Your task to perform on an android device: Is it going to rain today? Image 0: 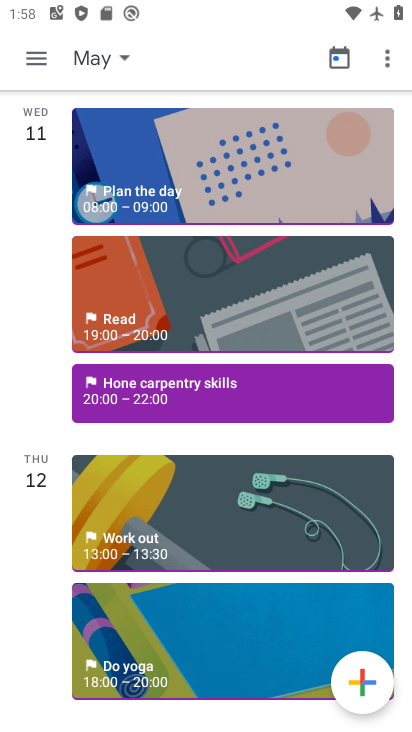
Step 0: press home button
Your task to perform on an android device: Is it going to rain today? Image 1: 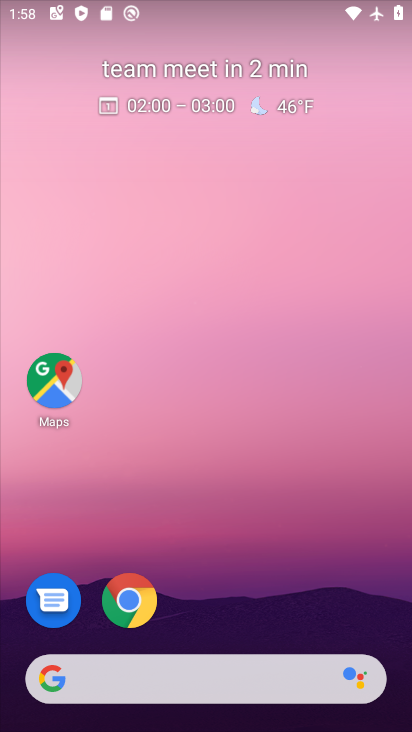
Step 1: click (203, 667)
Your task to perform on an android device: Is it going to rain today? Image 2: 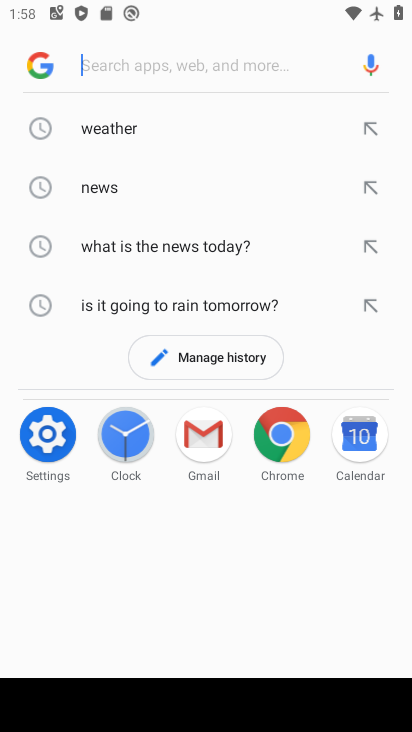
Step 2: click (111, 131)
Your task to perform on an android device: Is it going to rain today? Image 3: 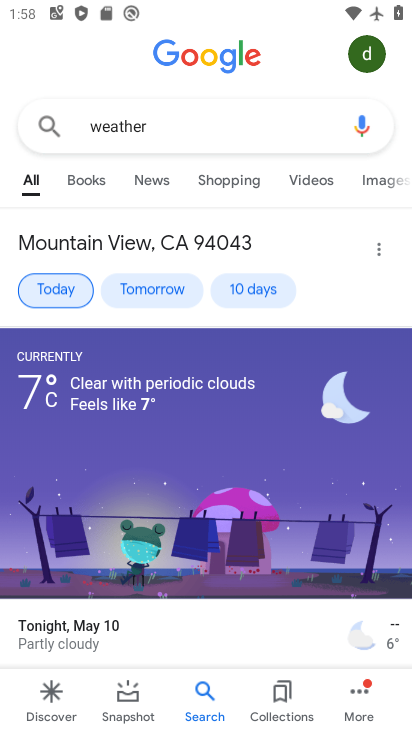
Step 3: click (49, 289)
Your task to perform on an android device: Is it going to rain today? Image 4: 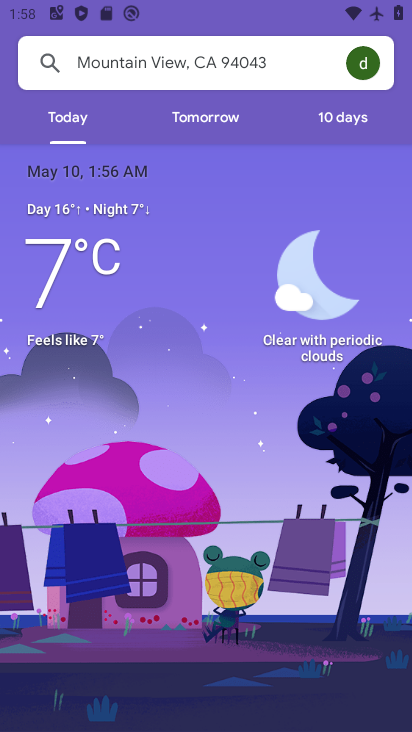
Step 4: task complete